Your task to perform on an android device: change the clock display to show seconds Image 0: 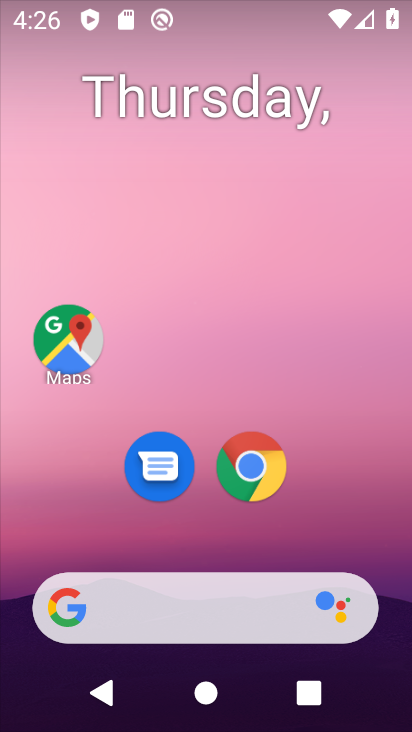
Step 0: drag from (202, 540) to (263, 41)
Your task to perform on an android device: change the clock display to show seconds Image 1: 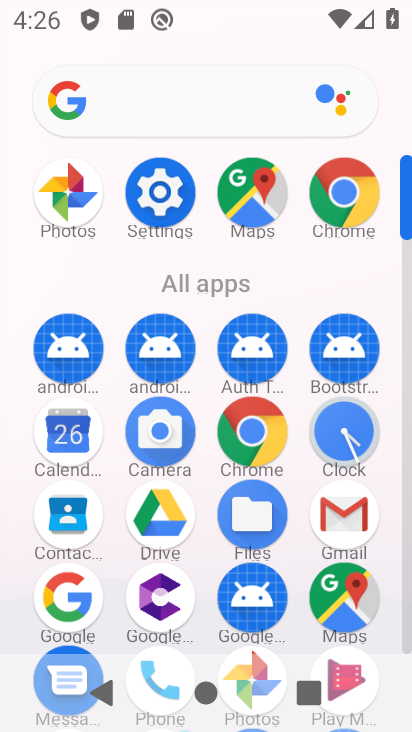
Step 1: click (349, 432)
Your task to perform on an android device: change the clock display to show seconds Image 2: 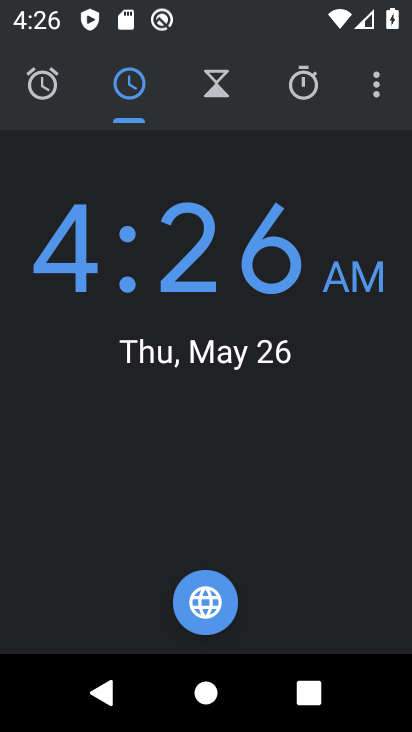
Step 2: click (368, 79)
Your task to perform on an android device: change the clock display to show seconds Image 3: 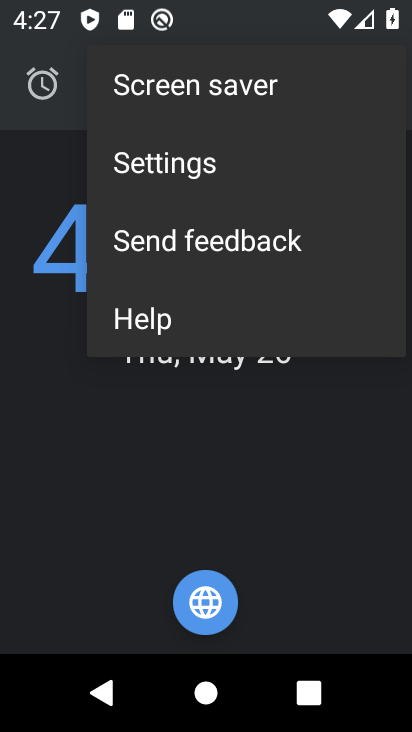
Step 3: click (253, 155)
Your task to perform on an android device: change the clock display to show seconds Image 4: 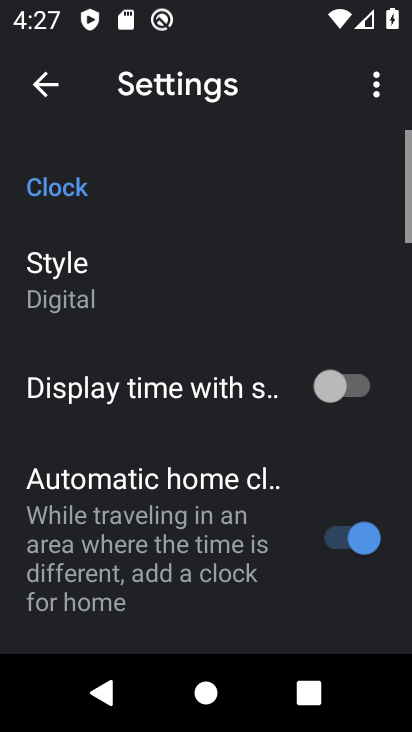
Step 4: click (94, 275)
Your task to perform on an android device: change the clock display to show seconds Image 5: 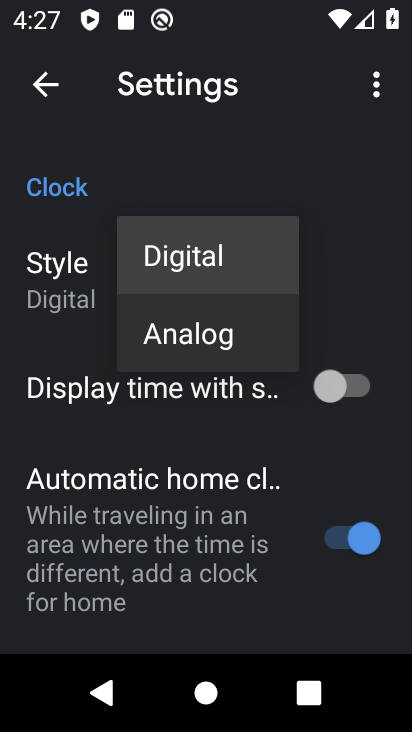
Step 5: click (340, 390)
Your task to perform on an android device: change the clock display to show seconds Image 6: 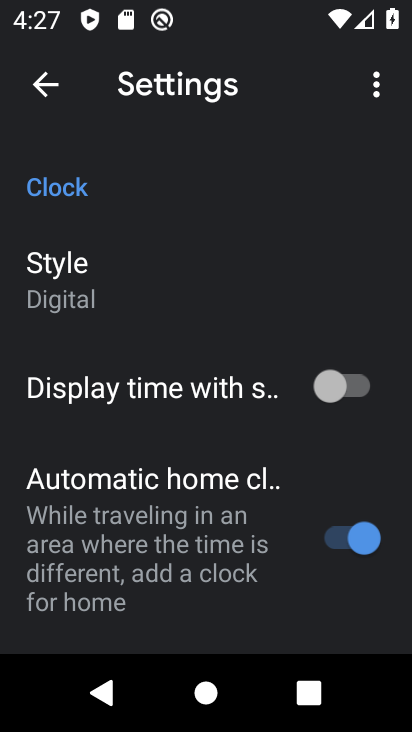
Step 6: click (347, 387)
Your task to perform on an android device: change the clock display to show seconds Image 7: 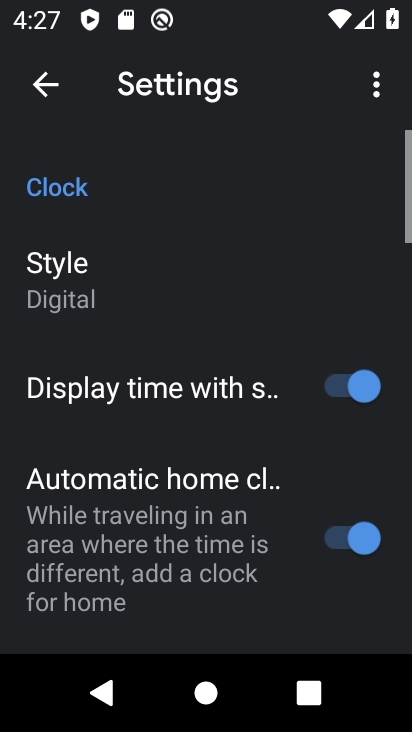
Step 7: task complete